Your task to perform on an android device: Toggle the flashlight Image 0: 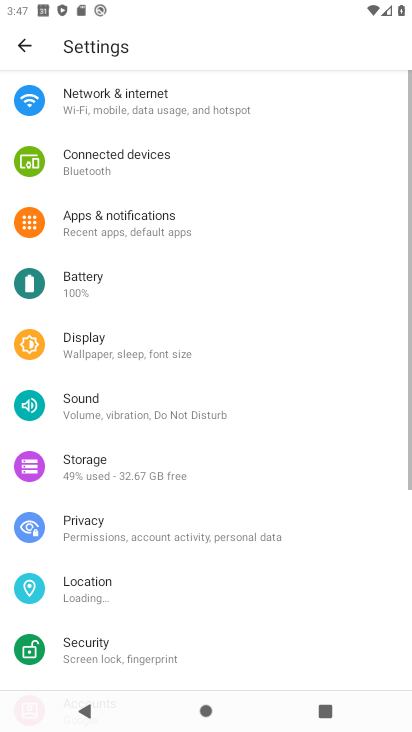
Step 0: press home button
Your task to perform on an android device: Toggle the flashlight Image 1: 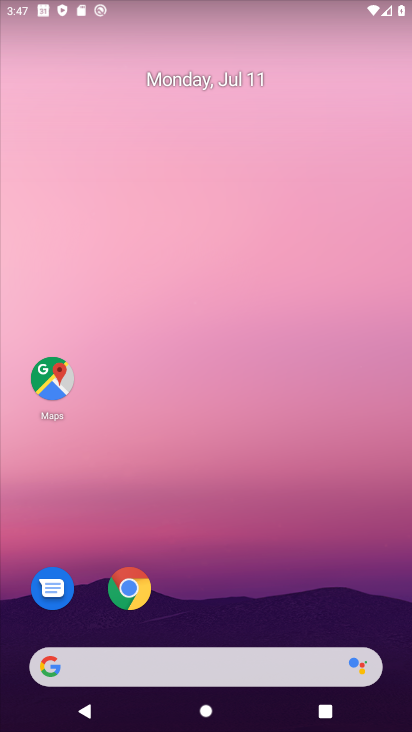
Step 1: drag from (101, 2) to (123, 617)
Your task to perform on an android device: Toggle the flashlight Image 2: 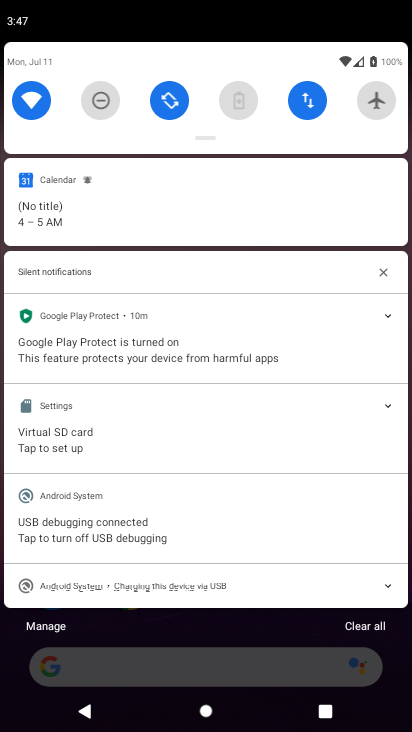
Step 2: drag from (204, 134) to (198, 550)
Your task to perform on an android device: Toggle the flashlight Image 3: 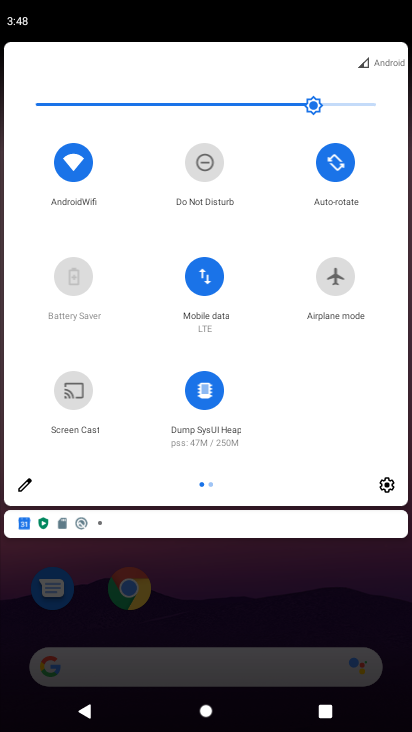
Step 3: drag from (315, 386) to (36, 393)
Your task to perform on an android device: Toggle the flashlight Image 4: 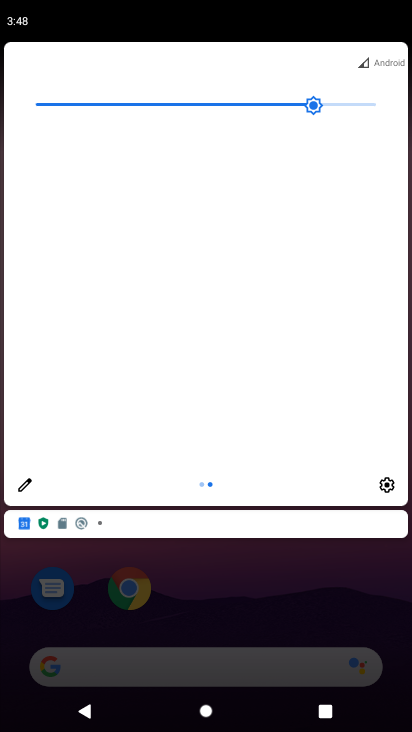
Step 4: click (21, 482)
Your task to perform on an android device: Toggle the flashlight Image 5: 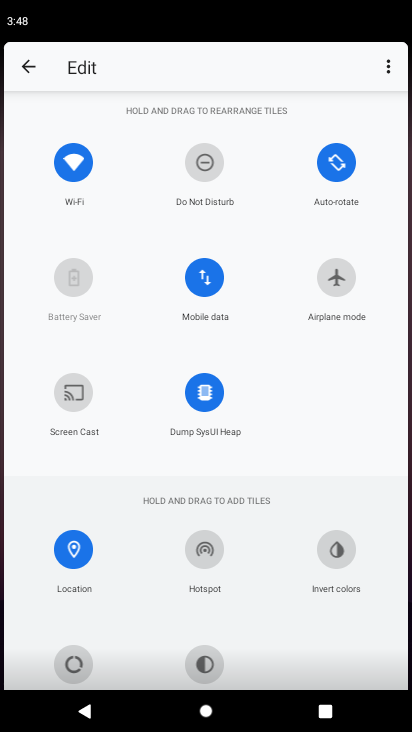
Step 5: task complete